Your task to perform on an android device: Open Google Image 0: 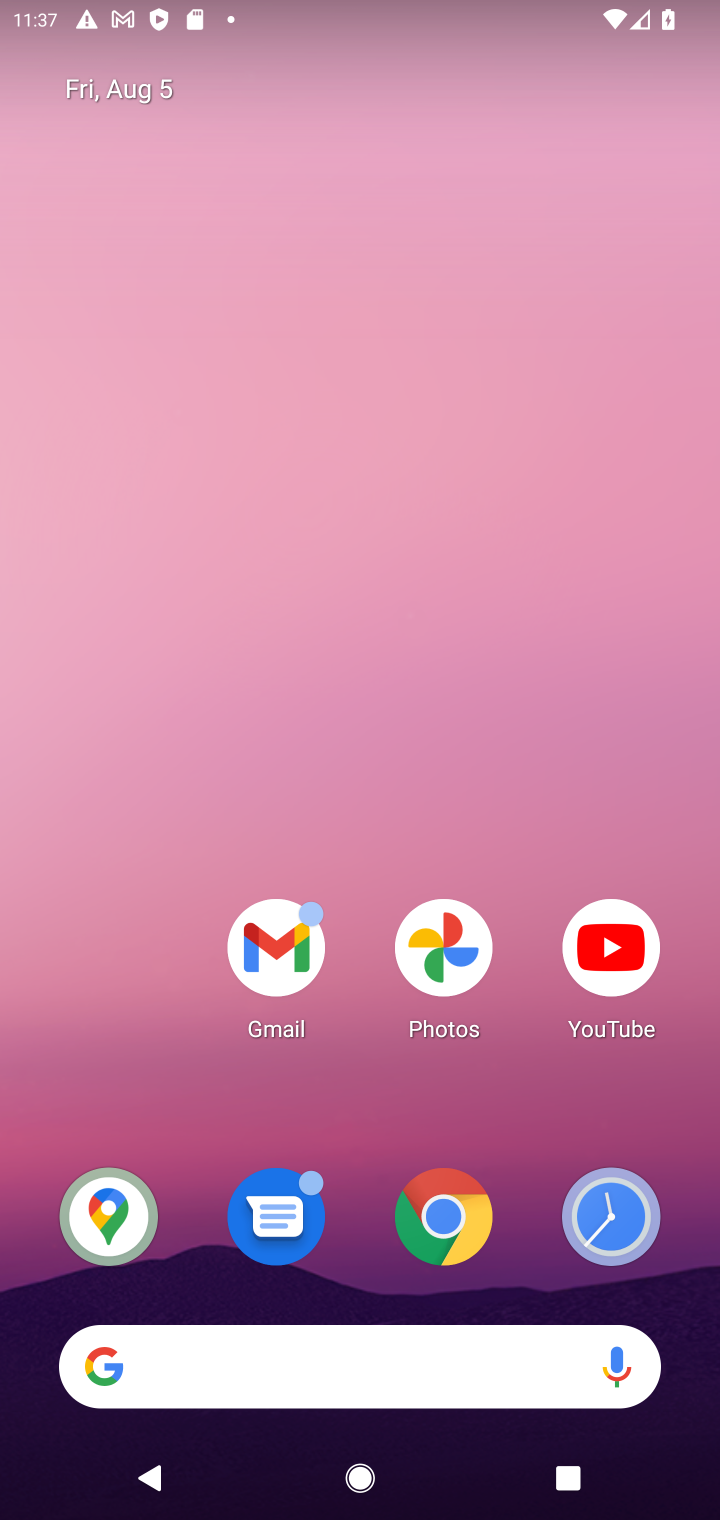
Step 0: drag from (466, 1275) to (429, 374)
Your task to perform on an android device: Open Google Image 1: 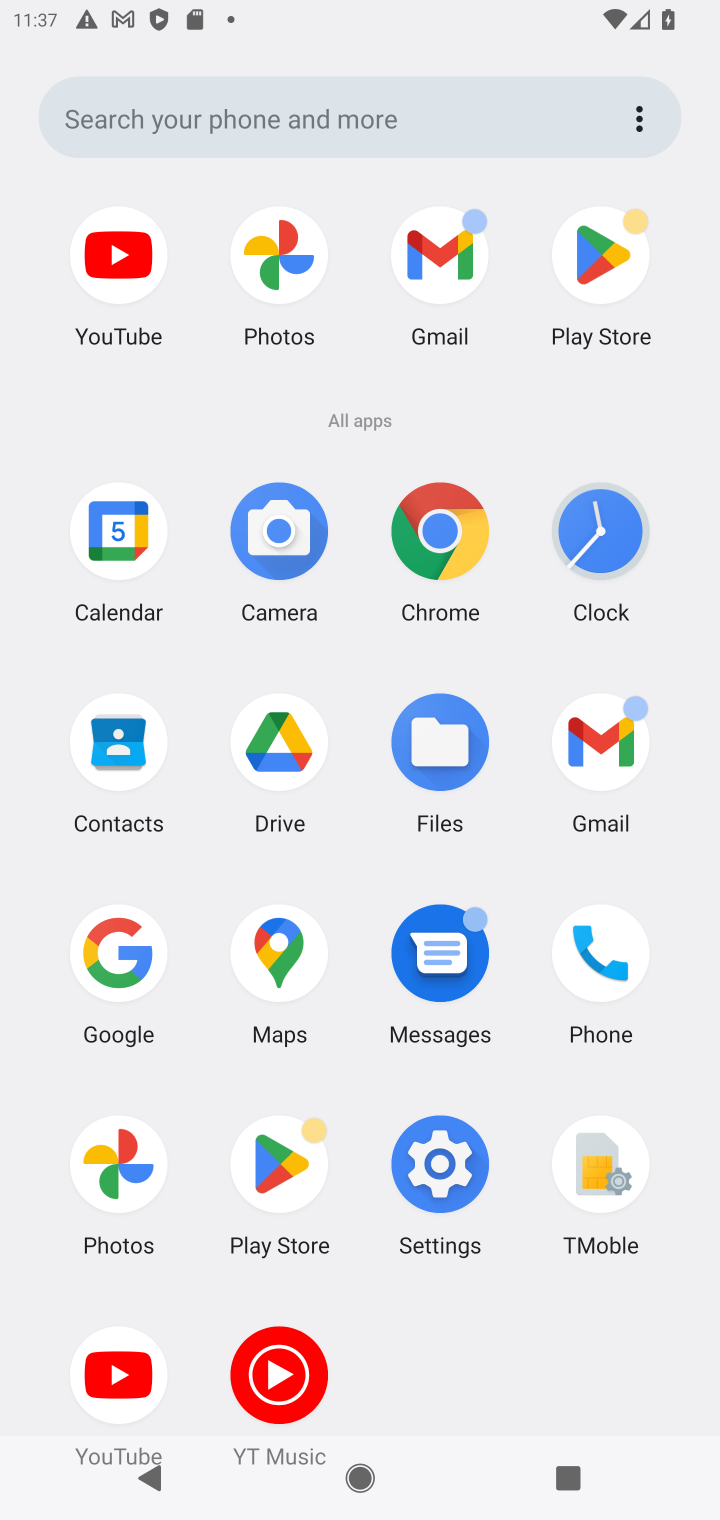
Step 1: click (109, 963)
Your task to perform on an android device: Open Google Image 2: 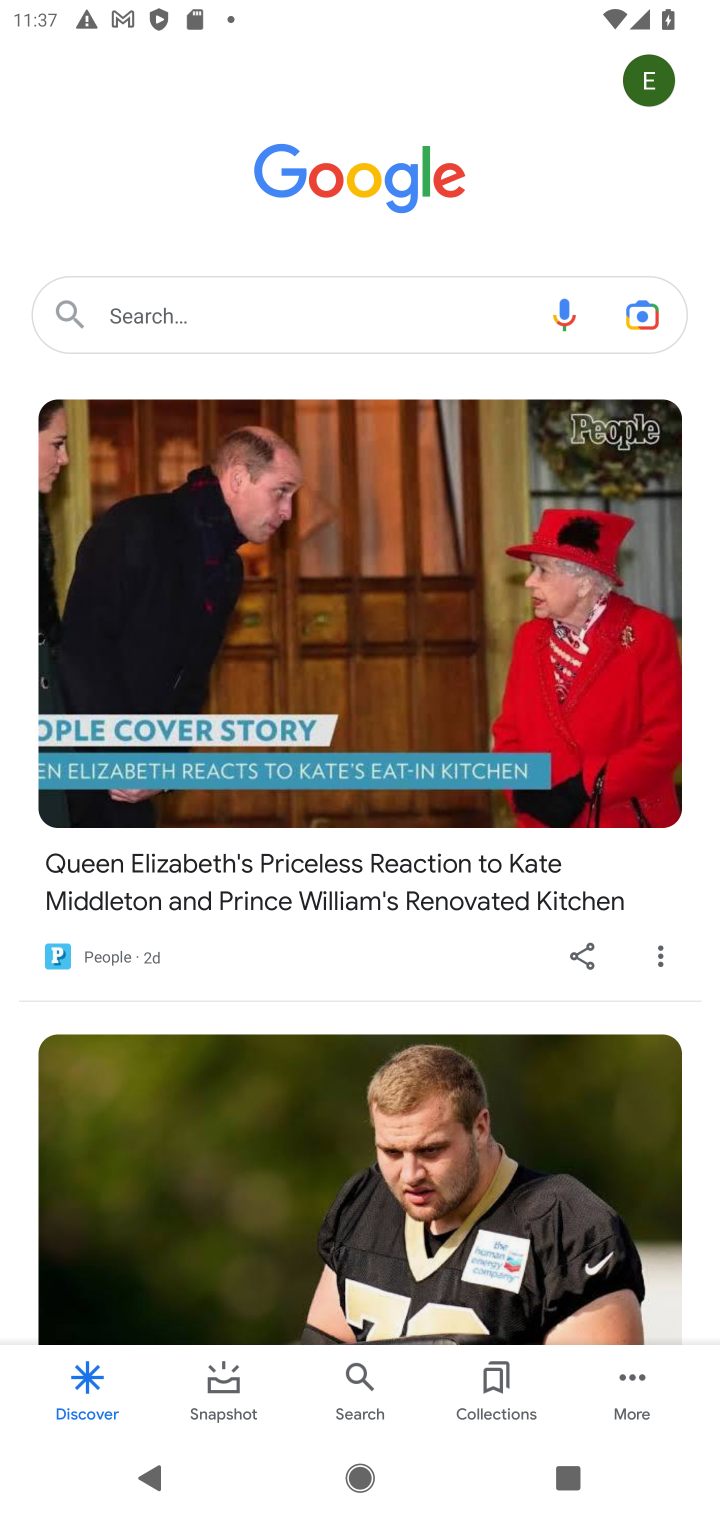
Step 2: task complete